Your task to perform on an android device: Go to notification settings Image 0: 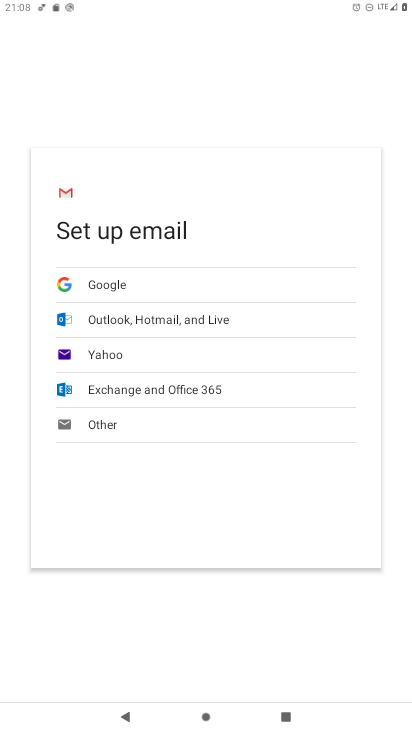
Step 0: press home button
Your task to perform on an android device: Go to notification settings Image 1: 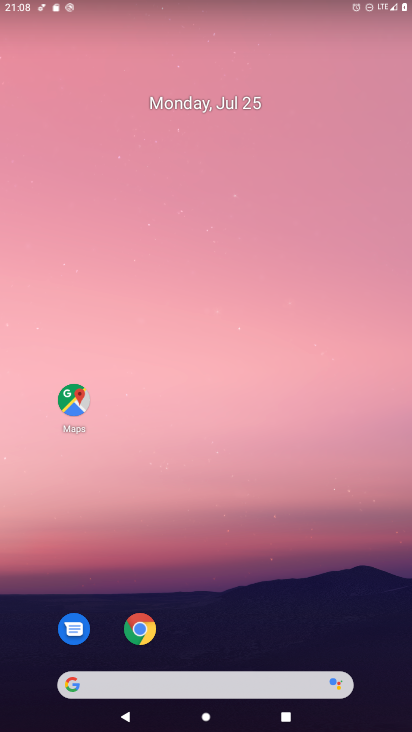
Step 1: drag from (177, 683) to (150, 77)
Your task to perform on an android device: Go to notification settings Image 2: 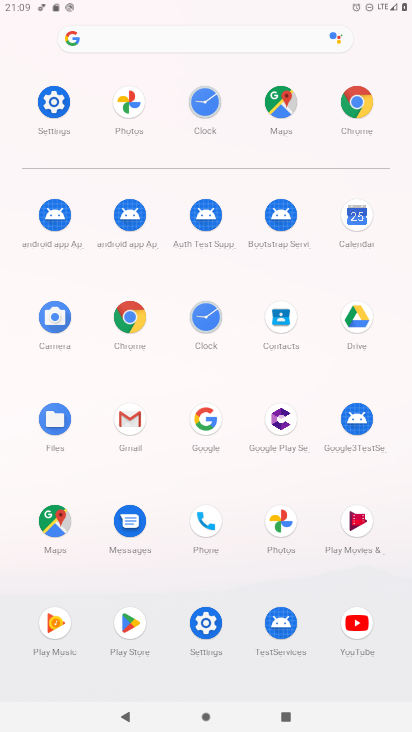
Step 2: click (54, 99)
Your task to perform on an android device: Go to notification settings Image 3: 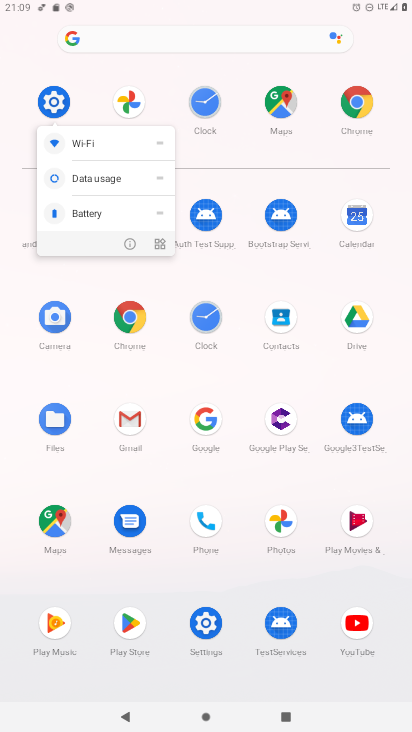
Step 3: click (54, 99)
Your task to perform on an android device: Go to notification settings Image 4: 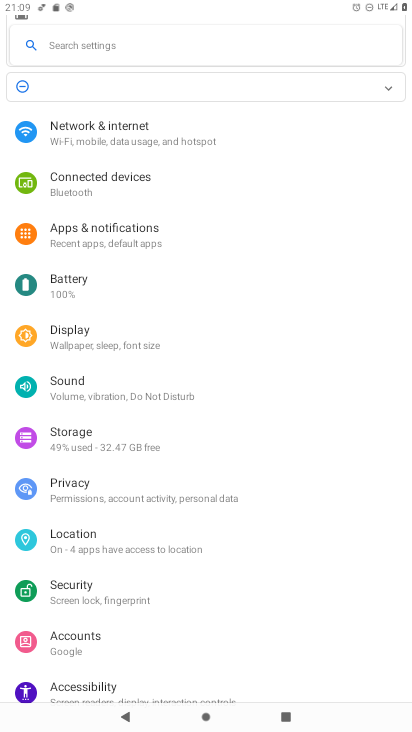
Step 4: click (76, 238)
Your task to perform on an android device: Go to notification settings Image 5: 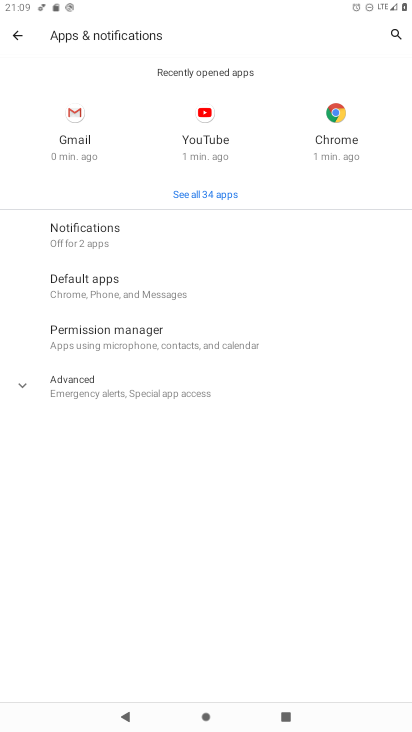
Step 5: click (76, 233)
Your task to perform on an android device: Go to notification settings Image 6: 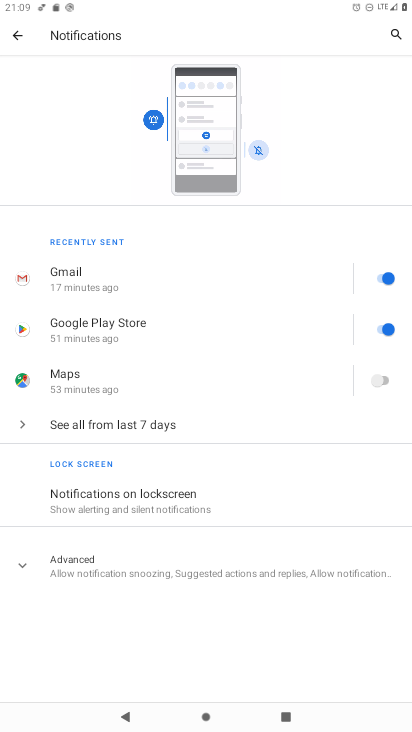
Step 6: task complete